Your task to perform on an android device: see sites visited before in the chrome app Image 0: 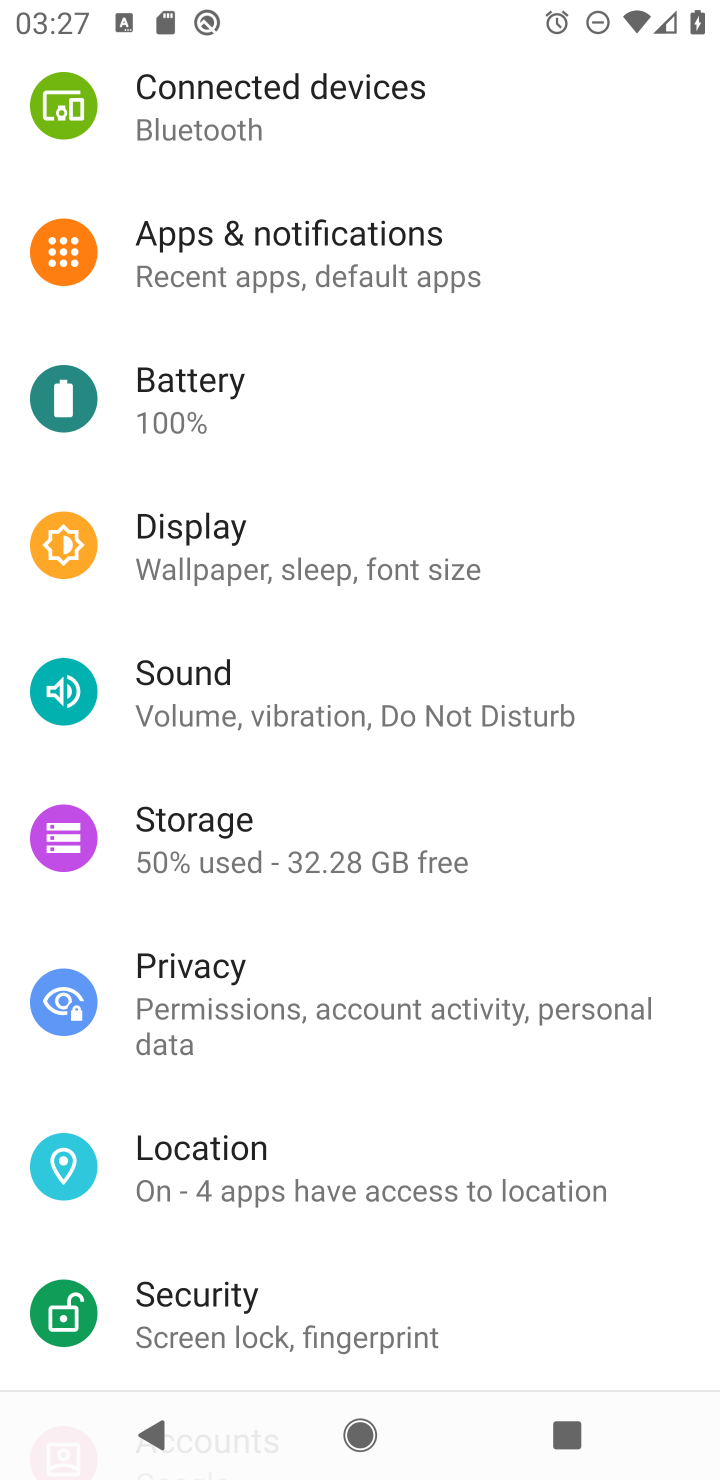
Step 0: press home button
Your task to perform on an android device: see sites visited before in the chrome app Image 1: 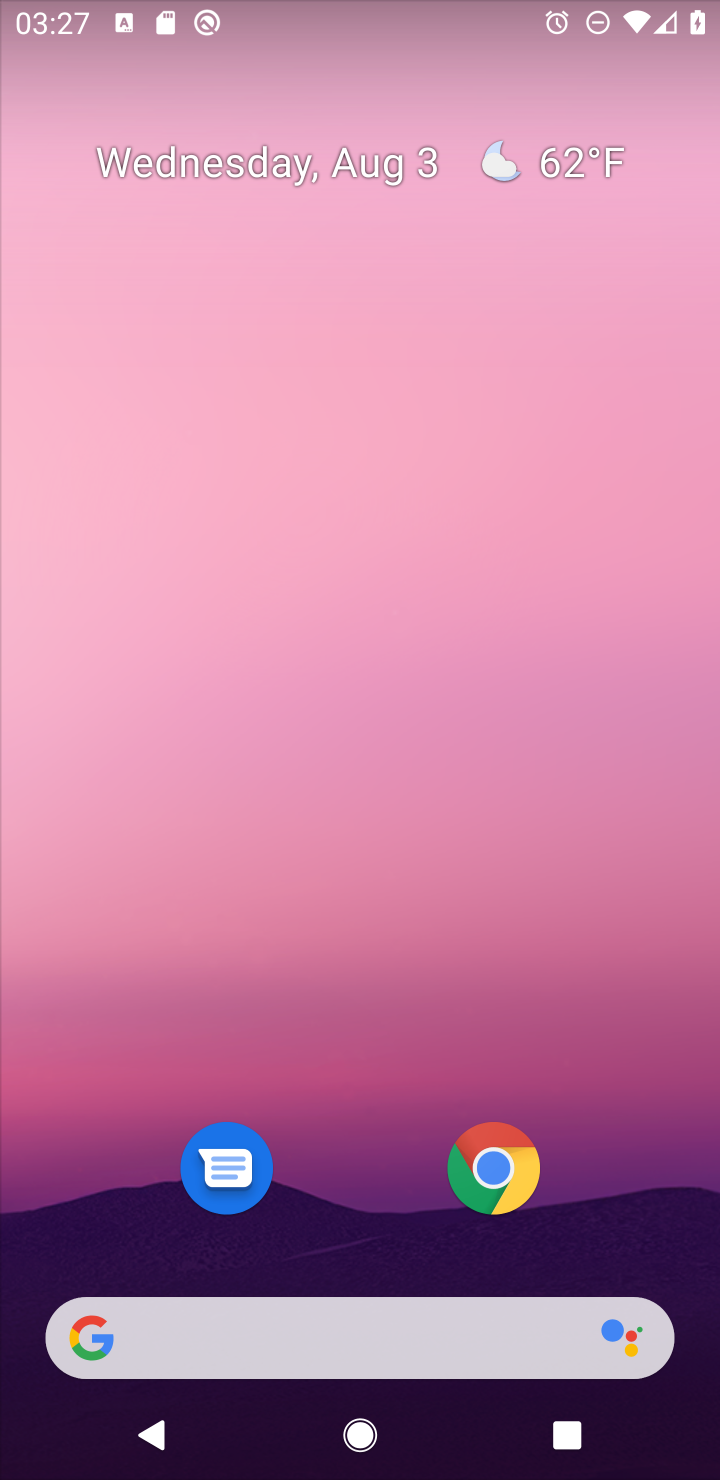
Step 1: click (494, 1165)
Your task to perform on an android device: see sites visited before in the chrome app Image 2: 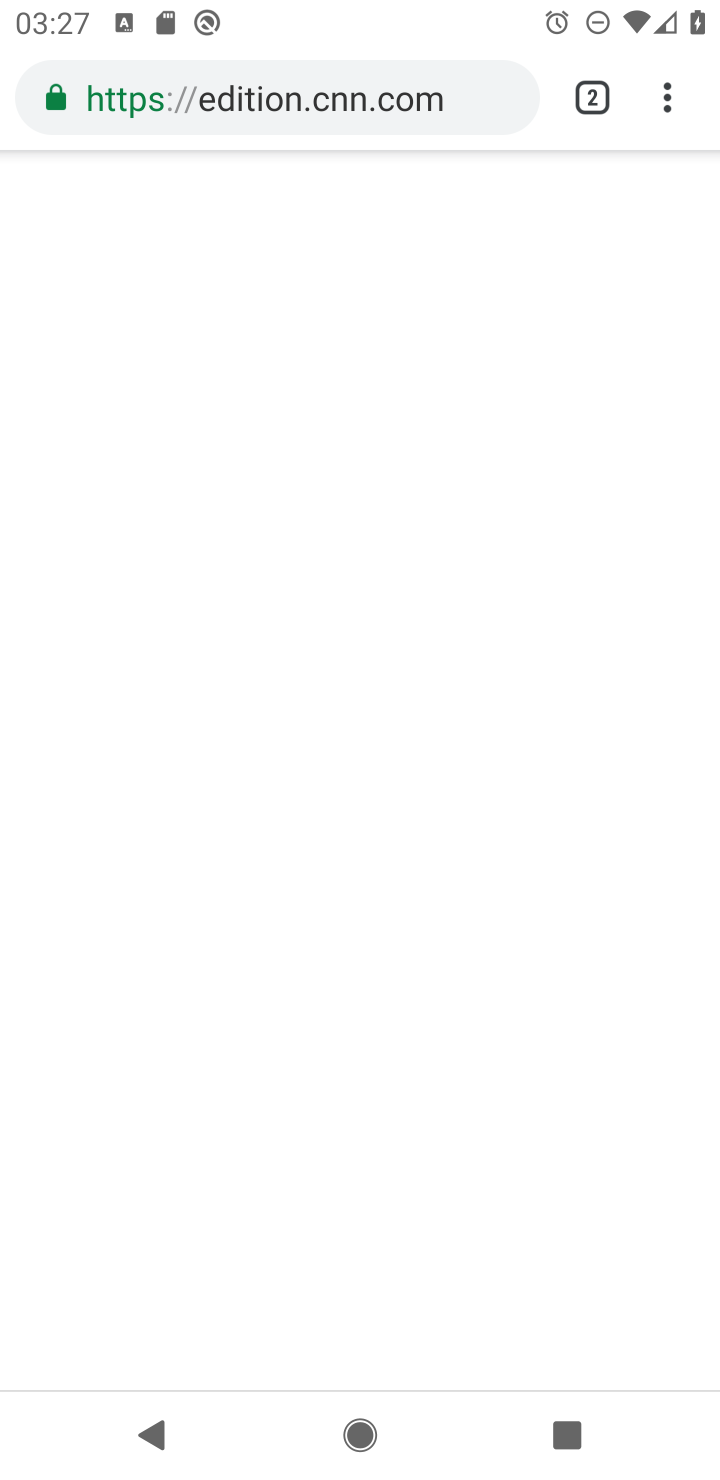
Step 2: click (662, 112)
Your task to perform on an android device: see sites visited before in the chrome app Image 3: 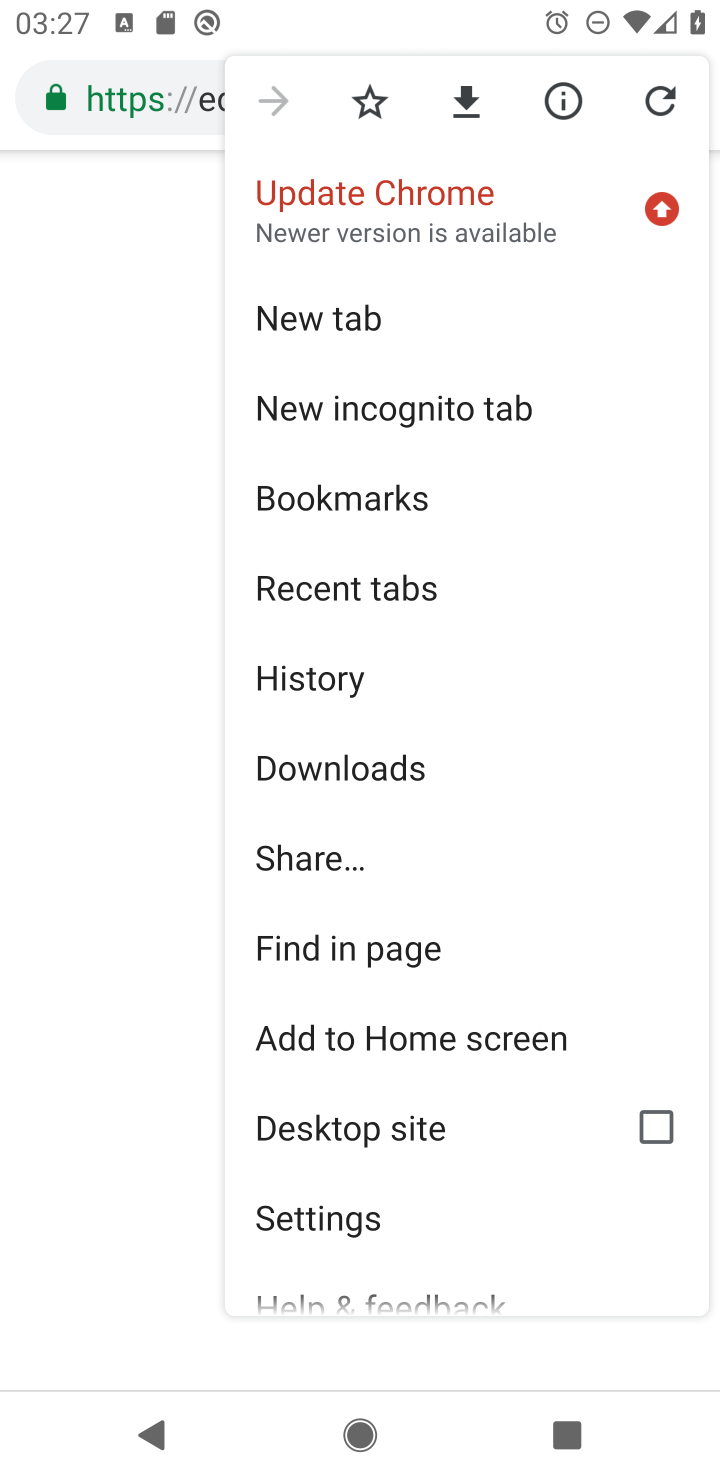
Step 3: click (318, 668)
Your task to perform on an android device: see sites visited before in the chrome app Image 4: 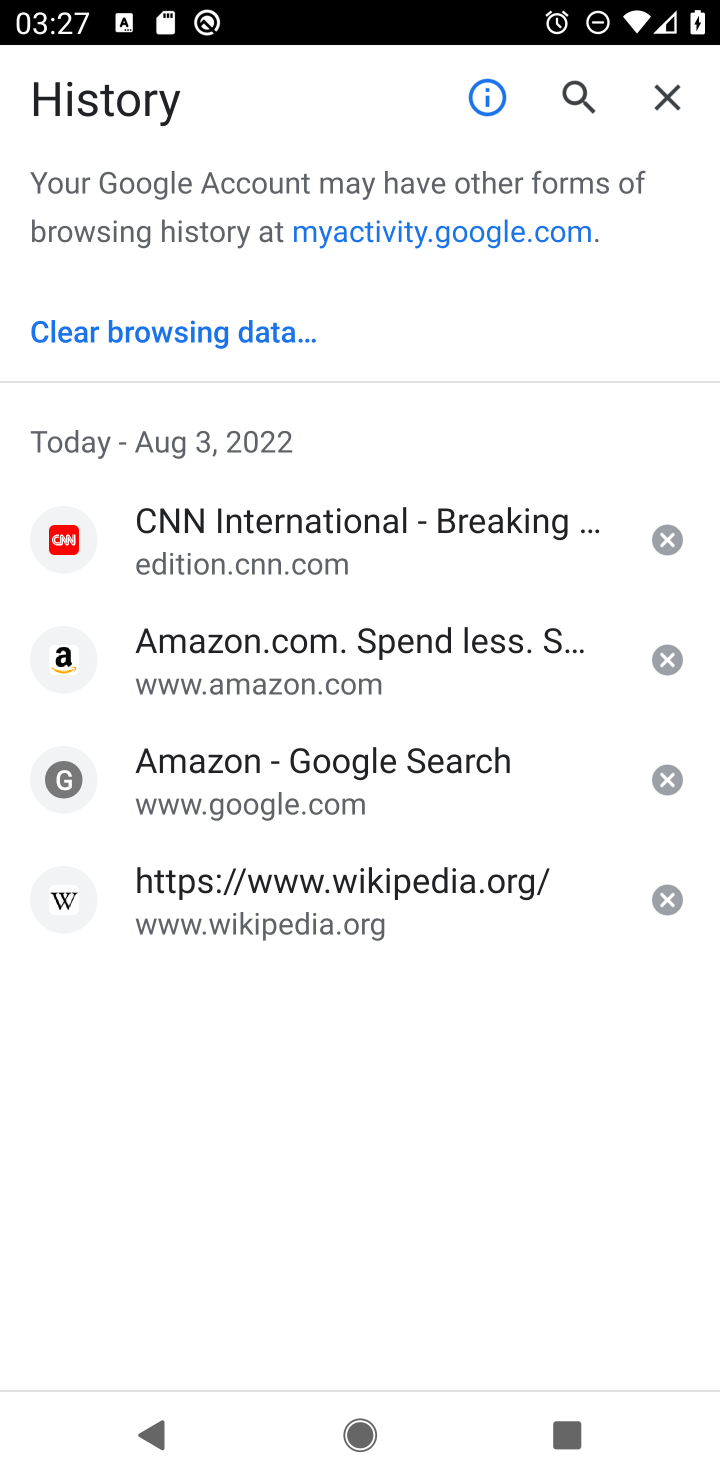
Step 4: task complete